Your task to perform on an android device: Search for sushi restaurants on Maps Image 0: 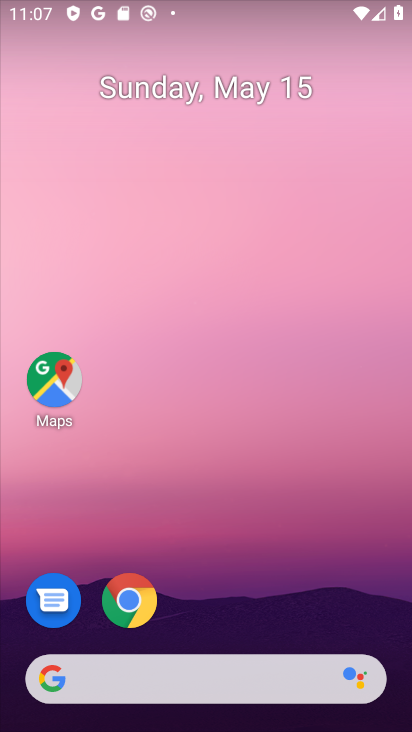
Step 0: click (41, 387)
Your task to perform on an android device: Search for sushi restaurants on Maps Image 1: 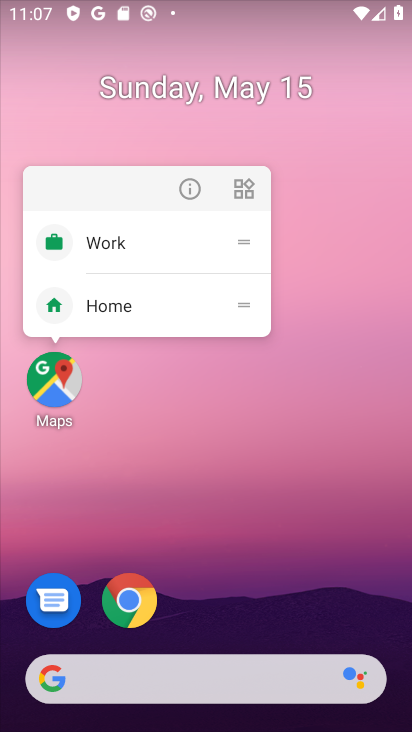
Step 1: click (35, 395)
Your task to perform on an android device: Search for sushi restaurants on Maps Image 2: 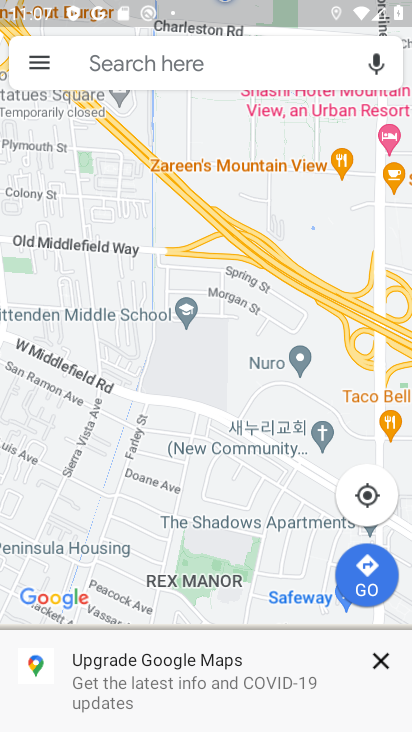
Step 2: click (179, 67)
Your task to perform on an android device: Search for sushi restaurants on Maps Image 3: 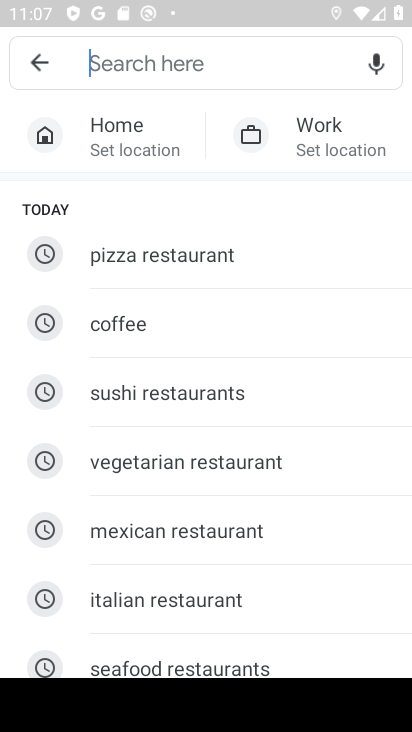
Step 3: click (163, 393)
Your task to perform on an android device: Search for sushi restaurants on Maps Image 4: 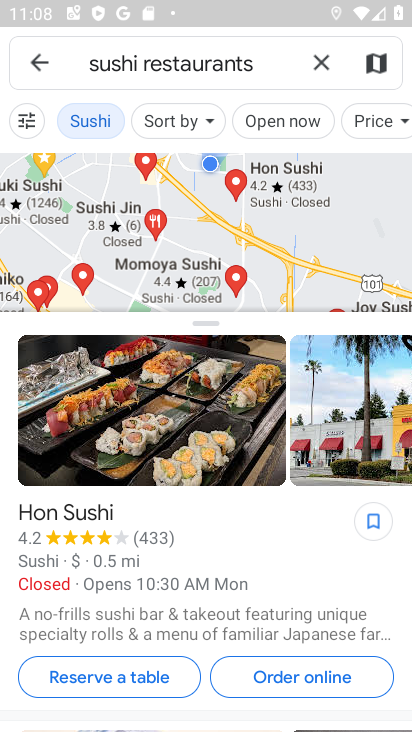
Step 4: task complete